Your task to perform on an android device: Go to settings Image 0: 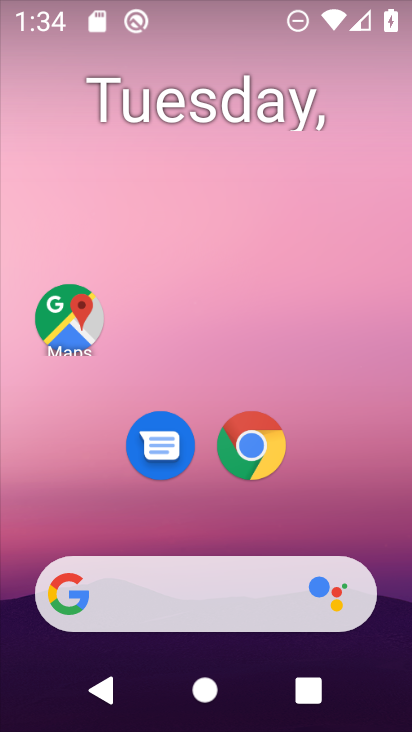
Step 0: drag from (202, 533) to (226, 192)
Your task to perform on an android device: Go to settings Image 1: 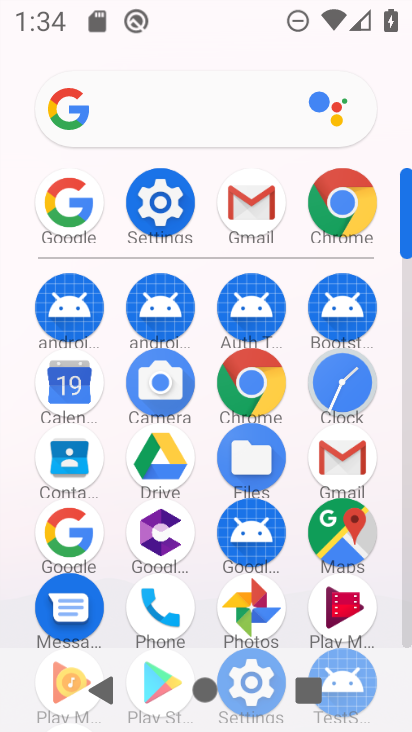
Step 1: click (158, 216)
Your task to perform on an android device: Go to settings Image 2: 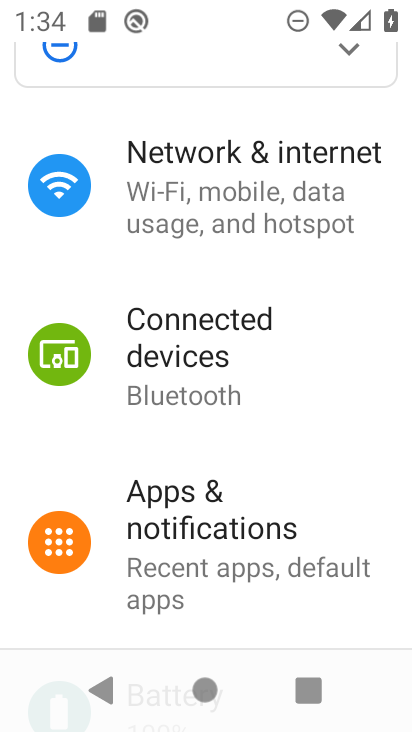
Step 2: task complete